Your task to perform on an android device: Open Android settings Image 0: 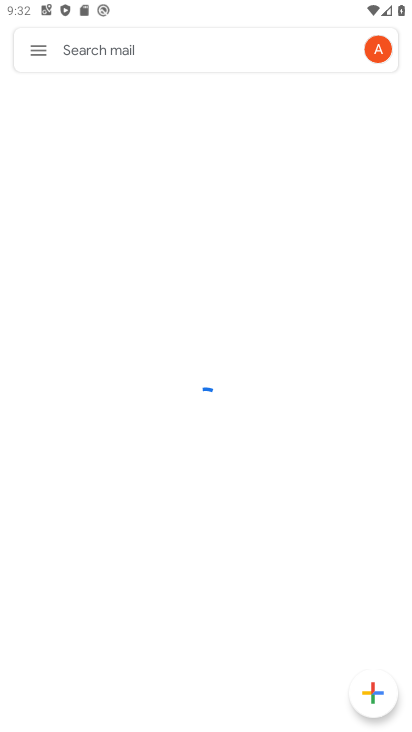
Step 0: press home button
Your task to perform on an android device: Open Android settings Image 1: 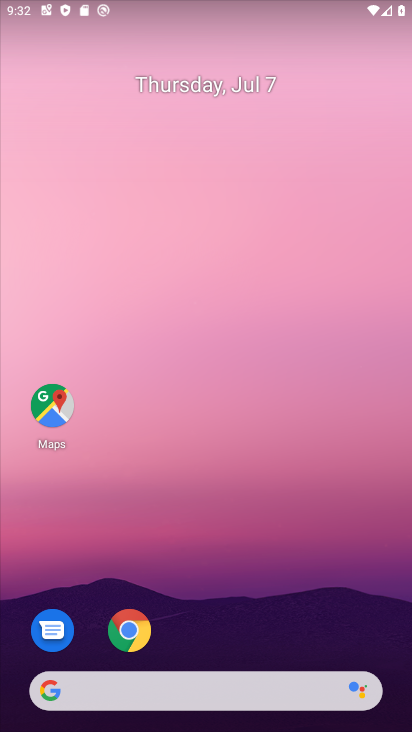
Step 1: drag from (203, 647) to (101, 156)
Your task to perform on an android device: Open Android settings Image 2: 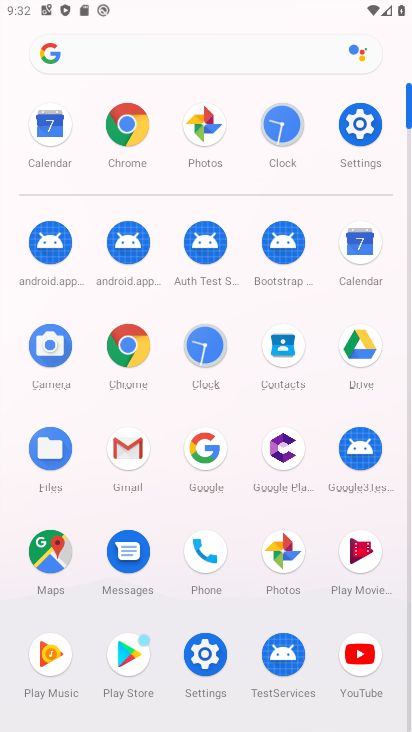
Step 2: click (367, 124)
Your task to perform on an android device: Open Android settings Image 3: 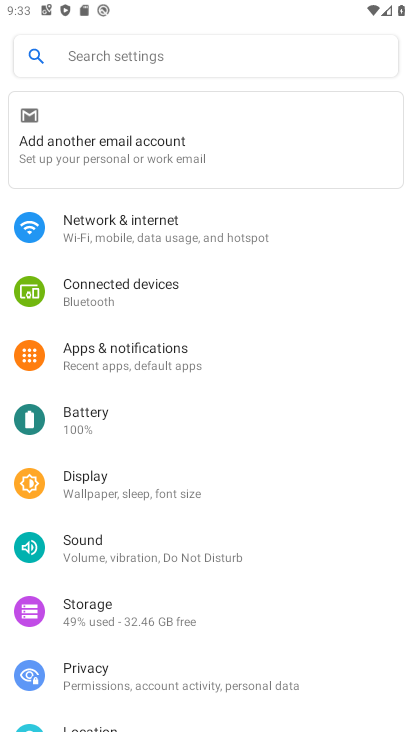
Step 3: task complete